Your task to perform on an android device: Go to Yahoo.com Image 0: 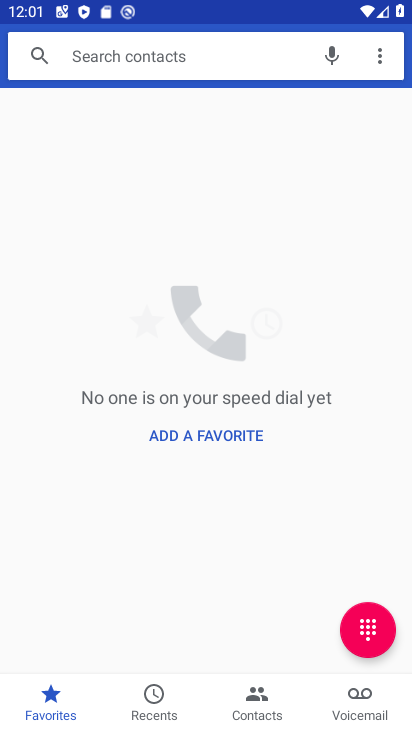
Step 0: press home button
Your task to perform on an android device: Go to Yahoo.com Image 1: 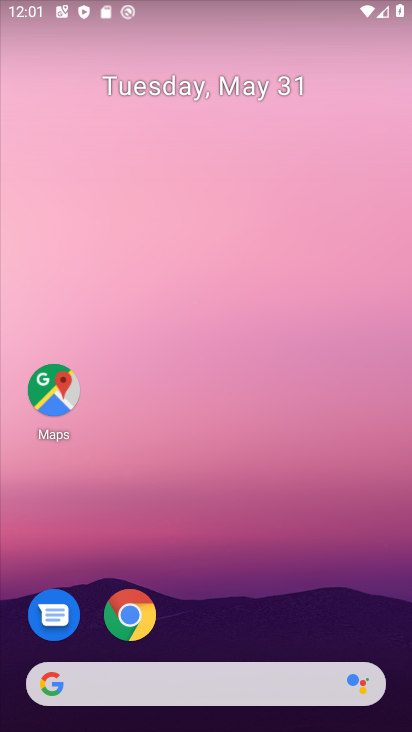
Step 1: click (118, 598)
Your task to perform on an android device: Go to Yahoo.com Image 2: 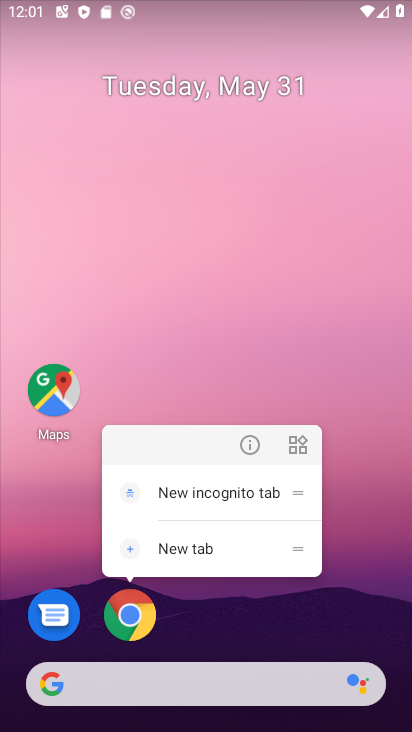
Step 2: click (118, 598)
Your task to perform on an android device: Go to Yahoo.com Image 3: 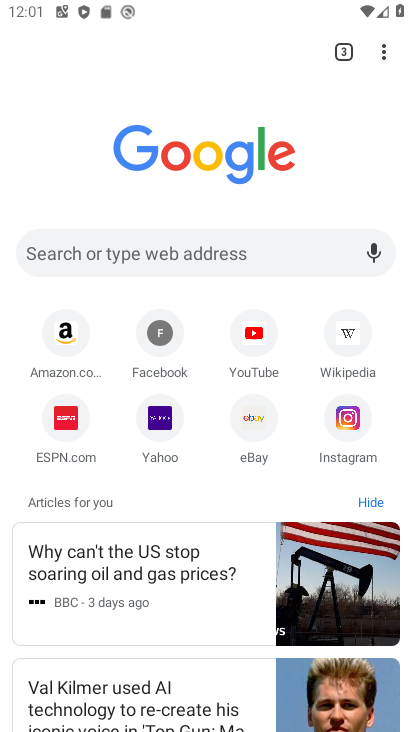
Step 3: click (164, 430)
Your task to perform on an android device: Go to Yahoo.com Image 4: 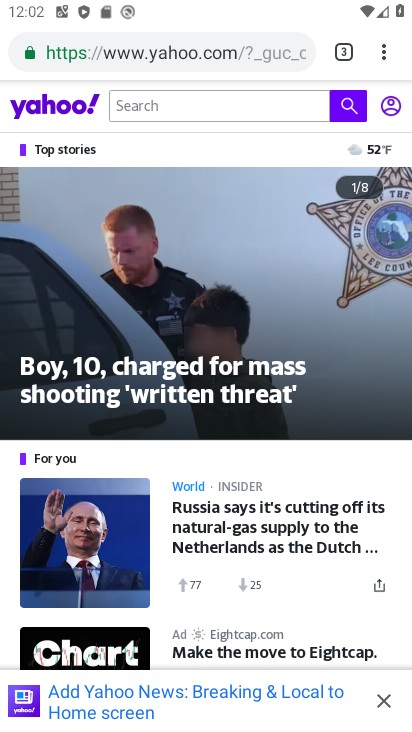
Step 4: task complete